Your task to perform on an android device: Go to display settings Image 0: 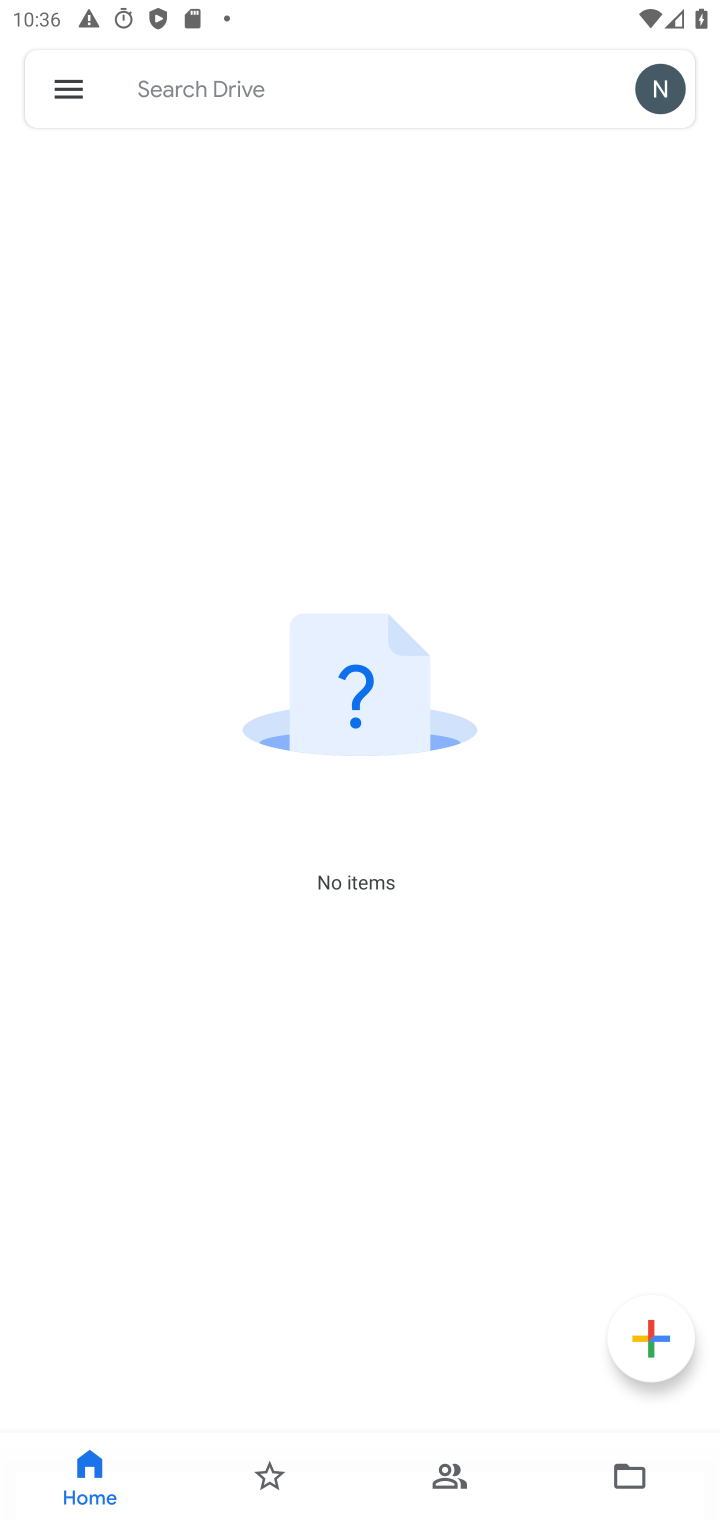
Step 0: press home button
Your task to perform on an android device: Go to display settings Image 1: 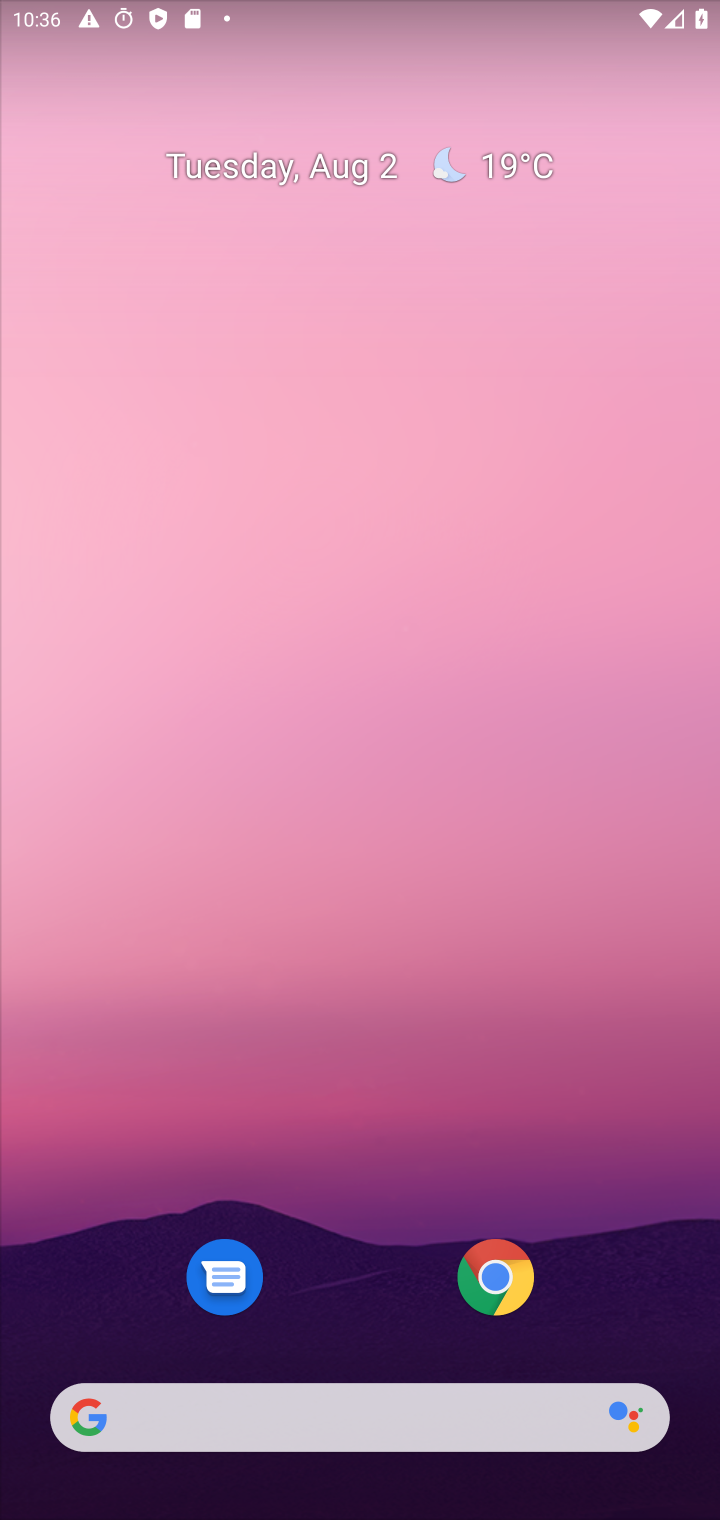
Step 1: drag from (387, 1266) to (273, 215)
Your task to perform on an android device: Go to display settings Image 2: 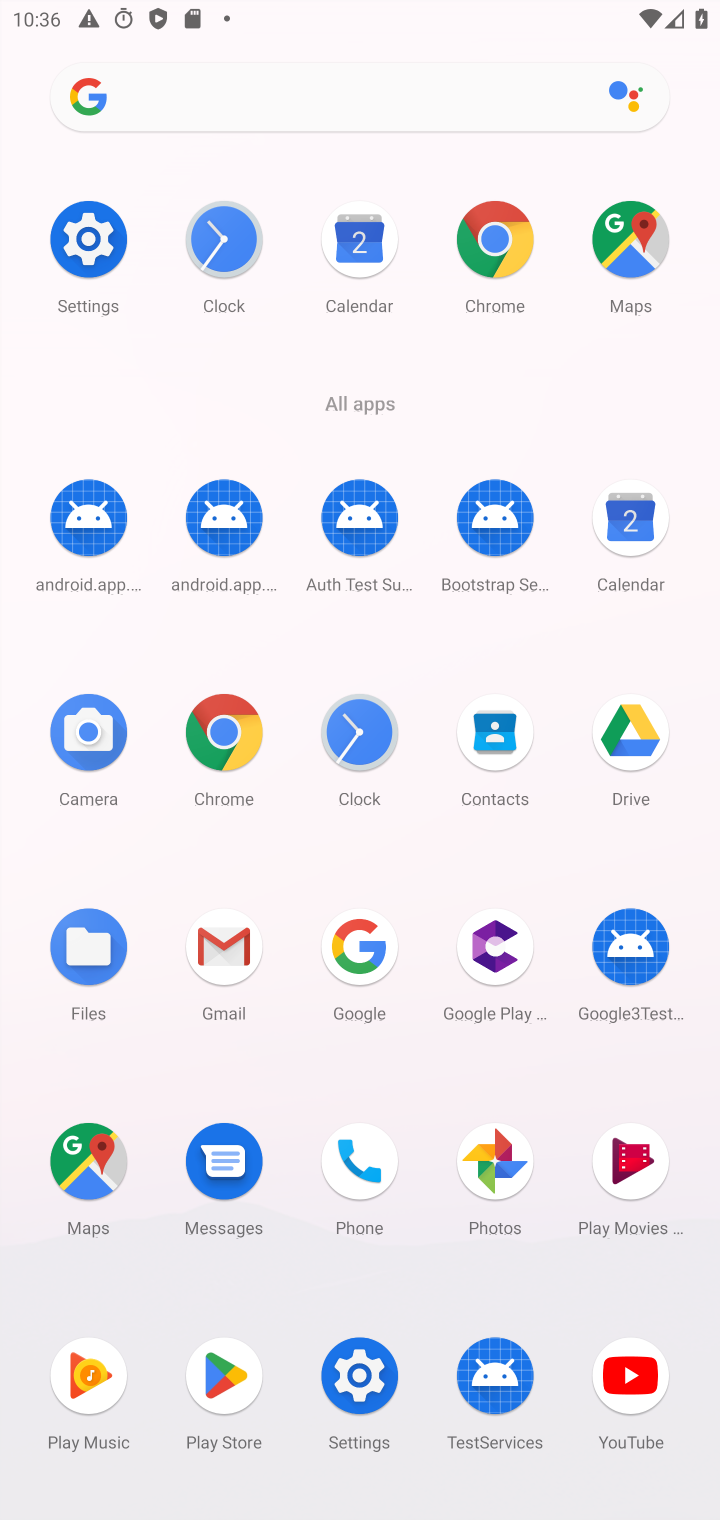
Step 2: click (100, 247)
Your task to perform on an android device: Go to display settings Image 3: 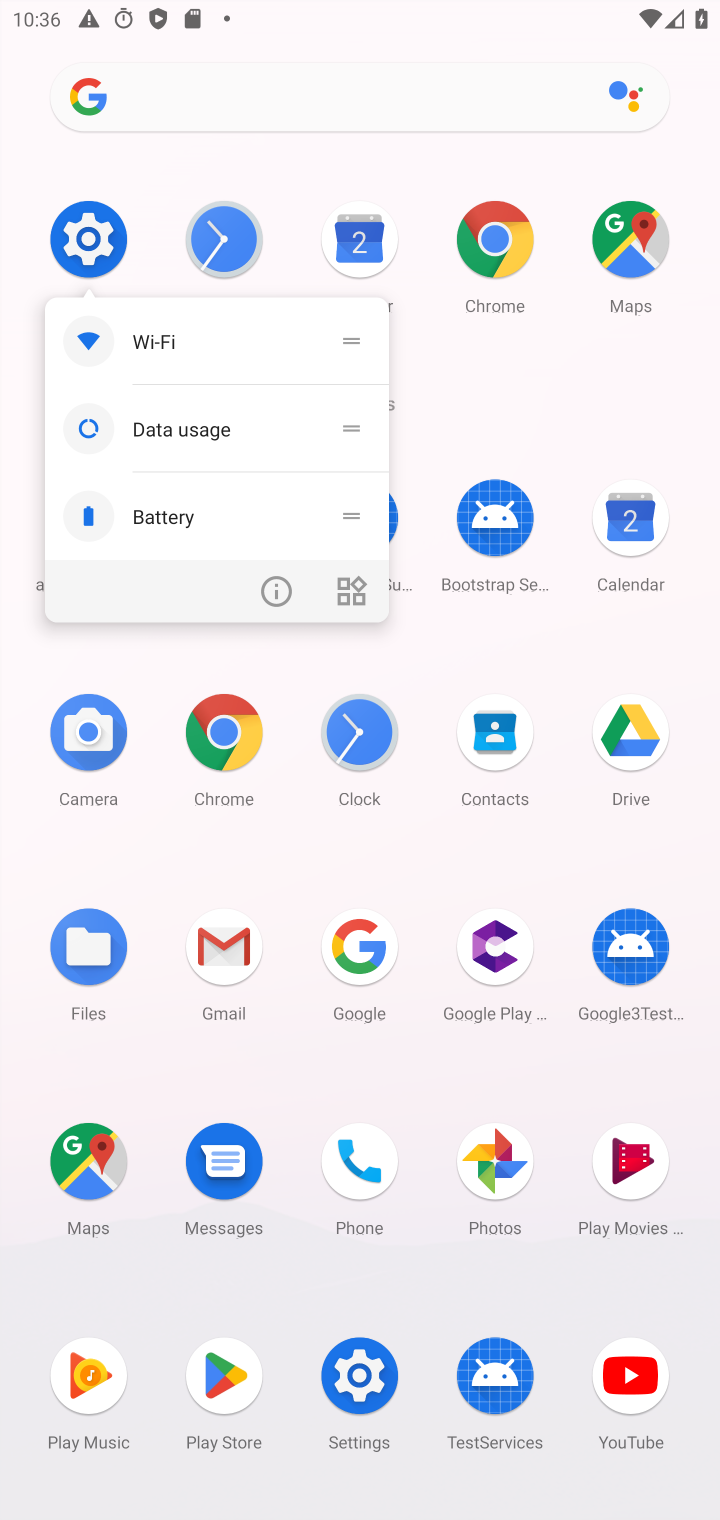
Step 3: click (89, 245)
Your task to perform on an android device: Go to display settings Image 4: 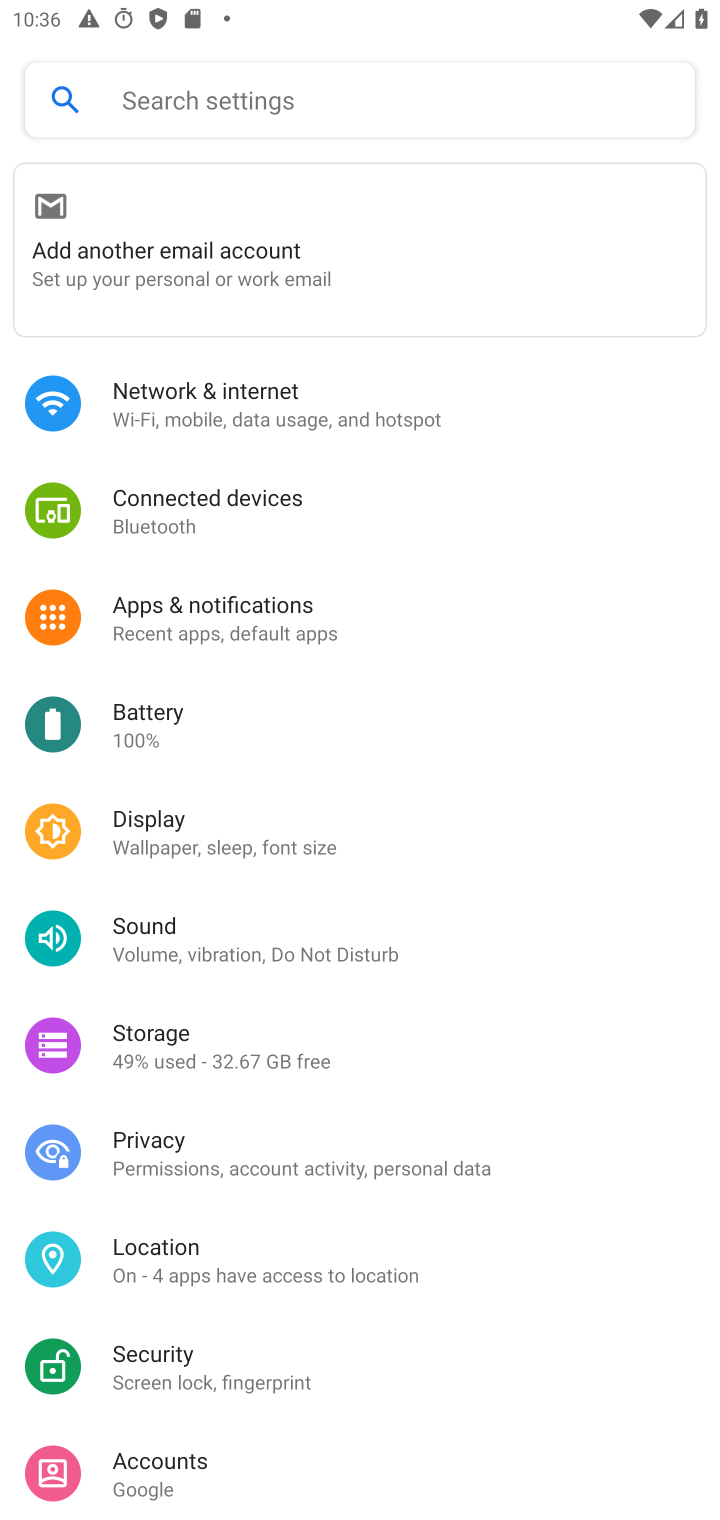
Step 4: click (209, 822)
Your task to perform on an android device: Go to display settings Image 5: 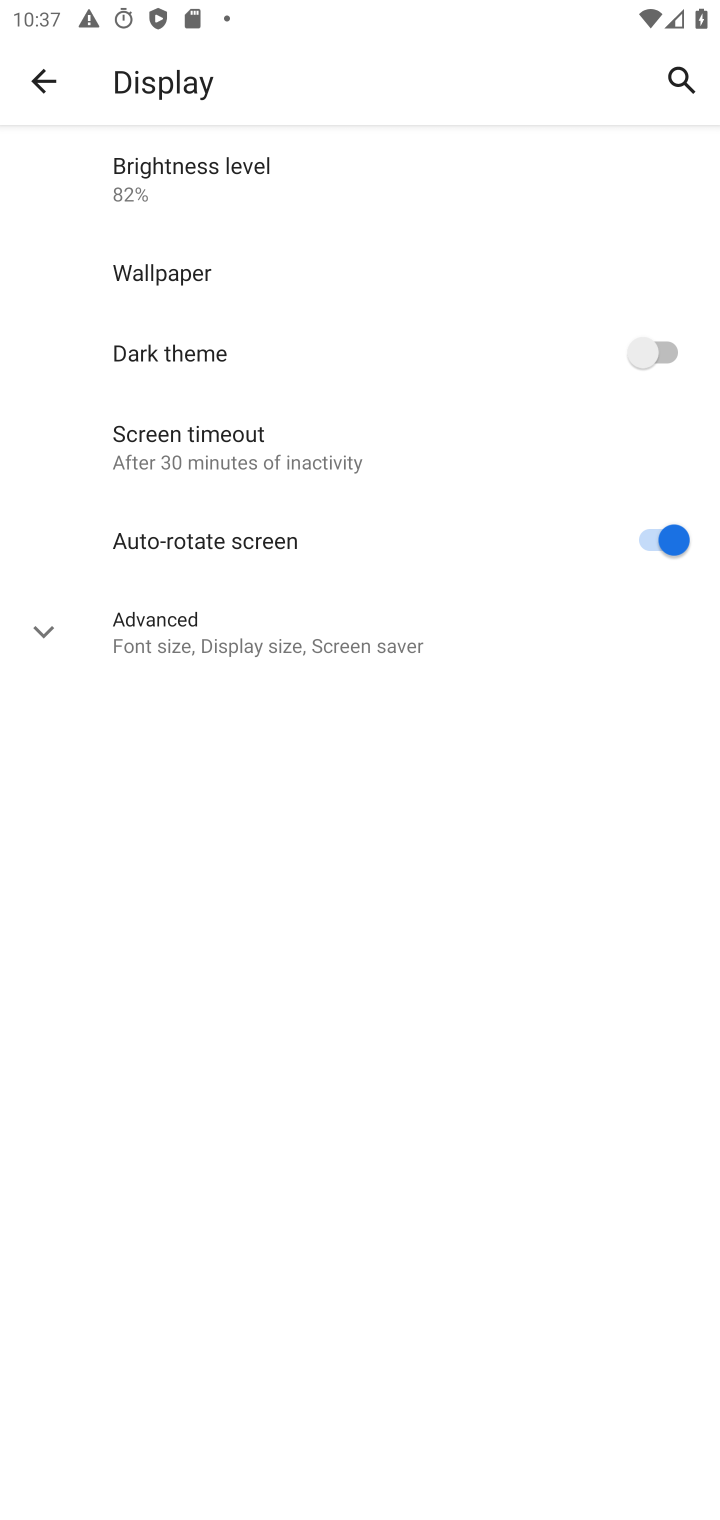
Step 5: task complete